Your task to perform on an android device: Search for pizza restaurants on Maps Image 0: 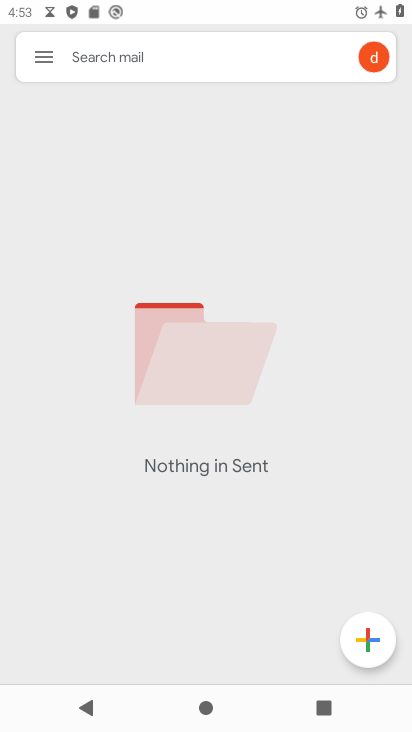
Step 0: press home button
Your task to perform on an android device: Search for pizza restaurants on Maps Image 1: 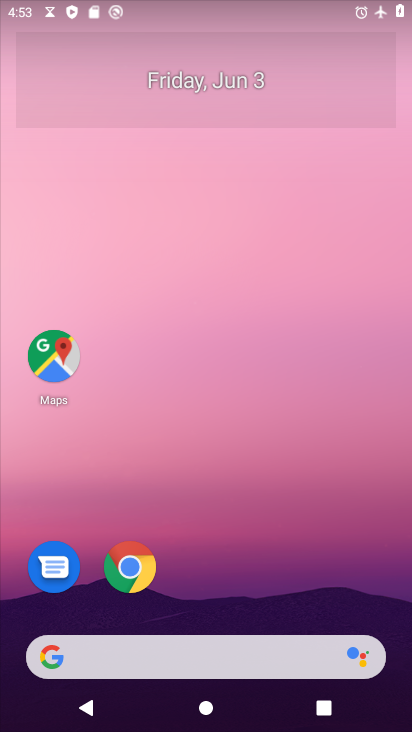
Step 1: click (54, 358)
Your task to perform on an android device: Search for pizza restaurants on Maps Image 2: 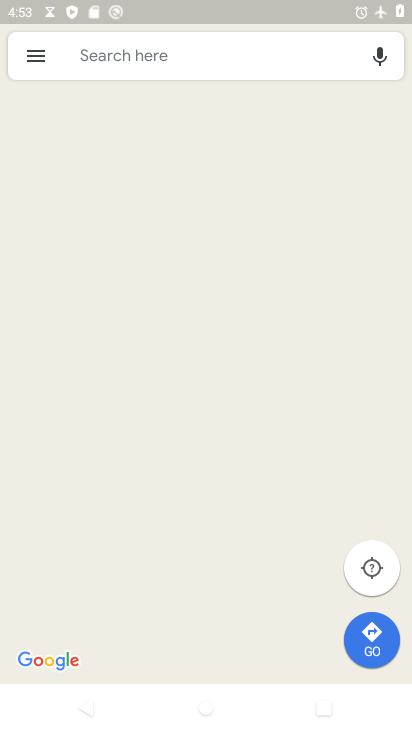
Step 2: click (196, 37)
Your task to perform on an android device: Search for pizza restaurants on Maps Image 3: 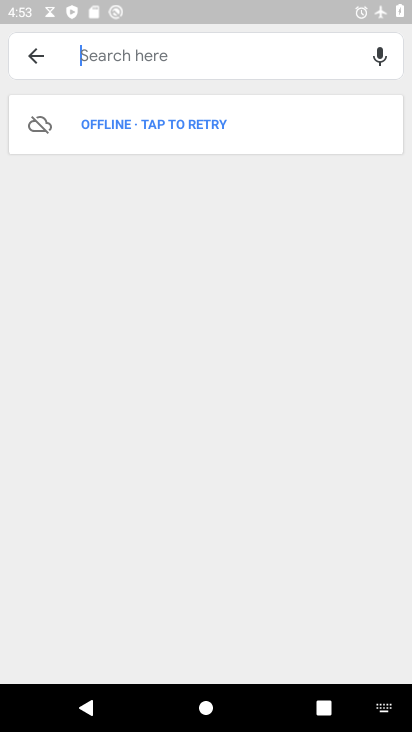
Step 3: type "pizza restaurants"
Your task to perform on an android device: Search for pizza restaurants on Maps Image 4: 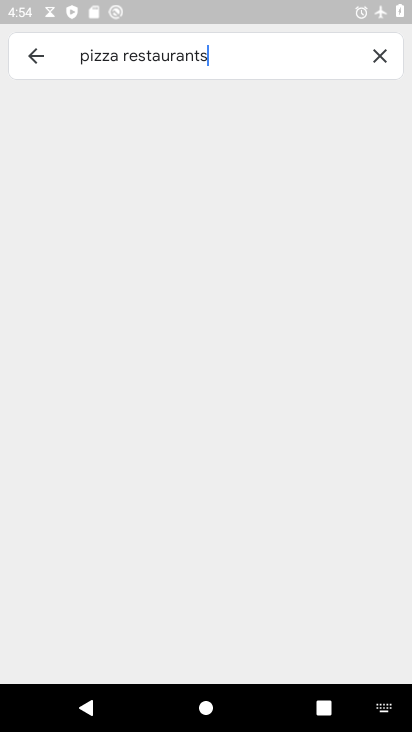
Step 4: type ""
Your task to perform on an android device: Search for pizza restaurants on Maps Image 5: 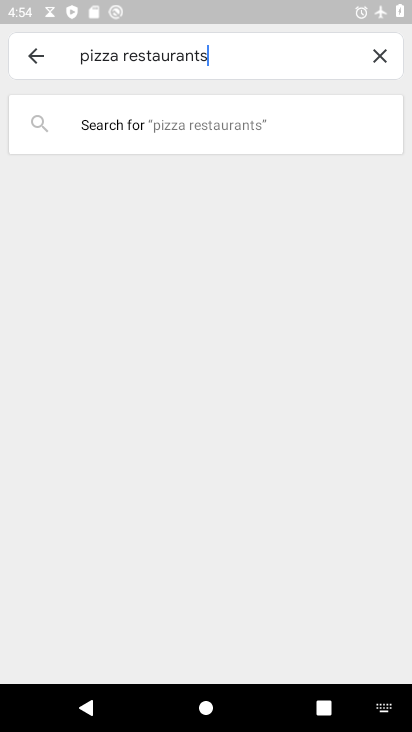
Step 5: task complete